Your task to perform on an android device: open wifi settings Image 0: 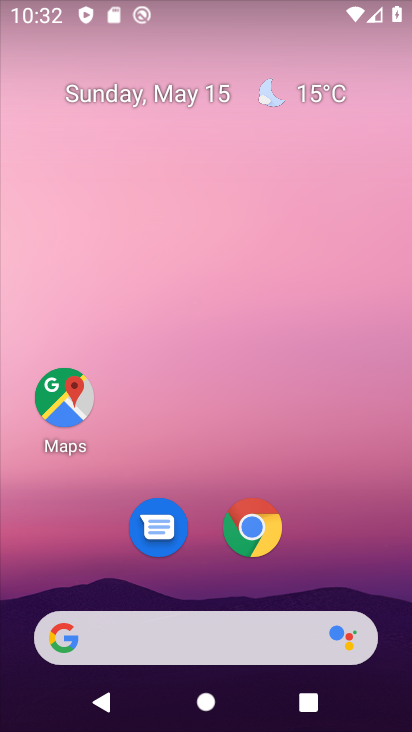
Step 0: drag from (348, 562) to (251, 133)
Your task to perform on an android device: open wifi settings Image 1: 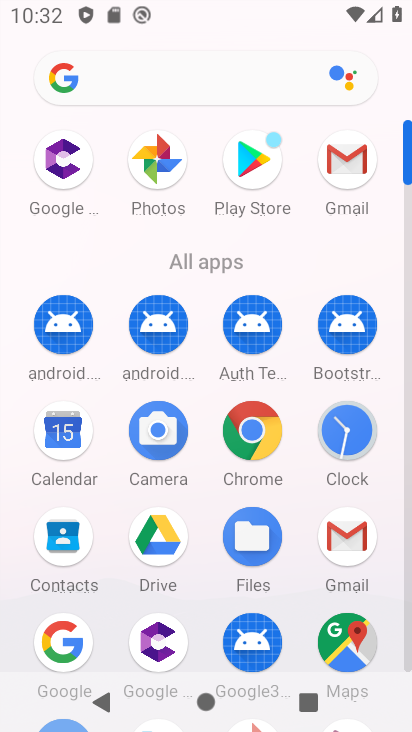
Step 1: drag from (195, 529) to (199, 251)
Your task to perform on an android device: open wifi settings Image 2: 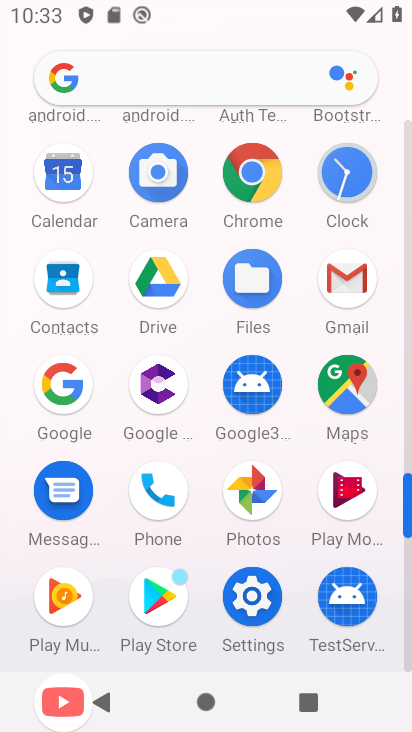
Step 2: click (250, 594)
Your task to perform on an android device: open wifi settings Image 3: 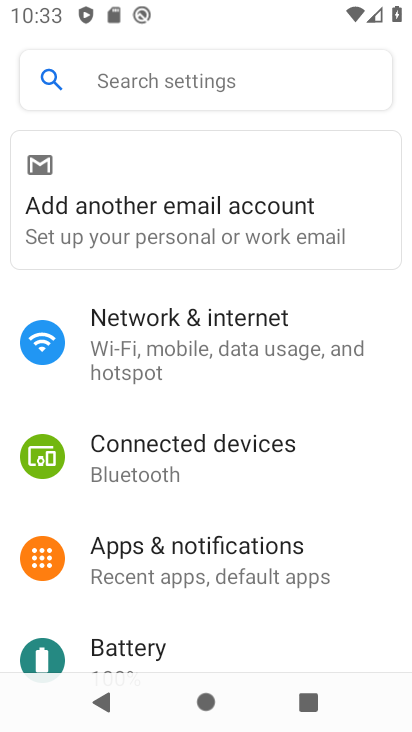
Step 3: click (172, 328)
Your task to perform on an android device: open wifi settings Image 4: 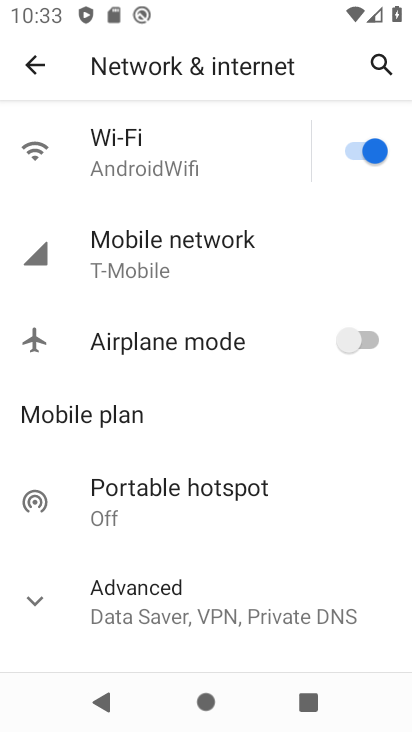
Step 4: click (129, 138)
Your task to perform on an android device: open wifi settings Image 5: 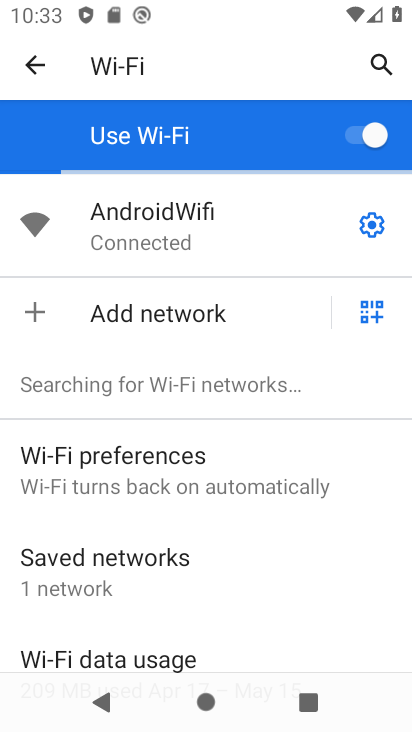
Step 5: click (375, 224)
Your task to perform on an android device: open wifi settings Image 6: 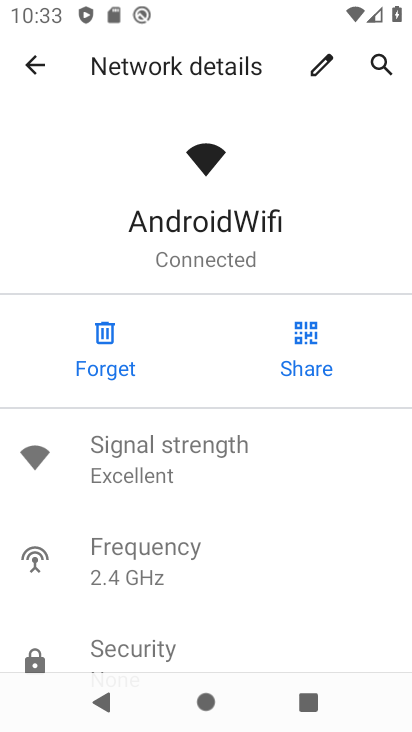
Step 6: task complete